Your task to perform on an android device: turn on improve location accuracy Image 0: 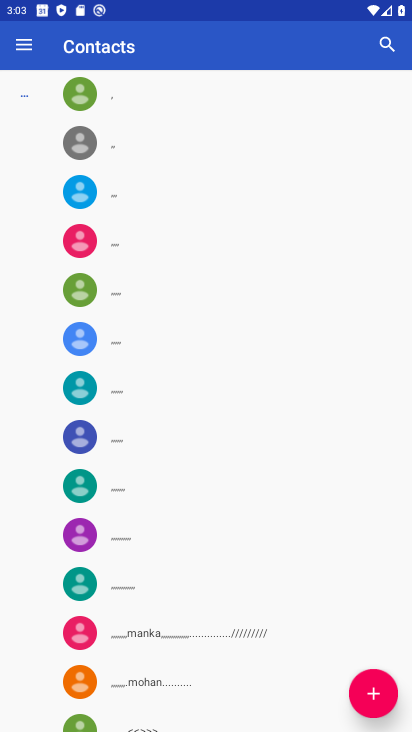
Step 0: press home button
Your task to perform on an android device: turn on improve location accuracy Image 1: 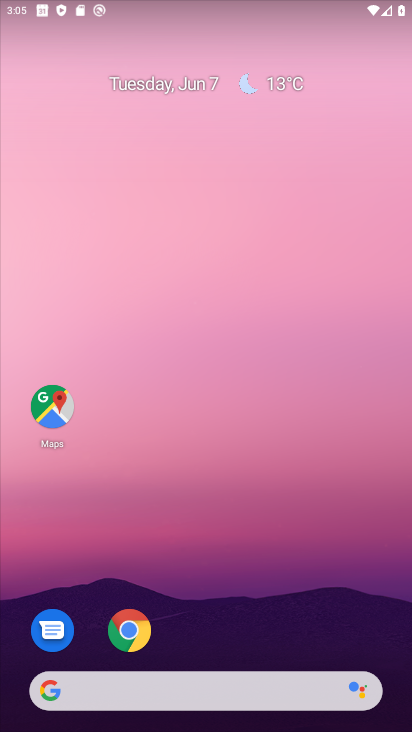
Step 1: drag from (153, 657) to (396, 495)
Your task to perform on an android device: turn on improve location accuracy Image 2: 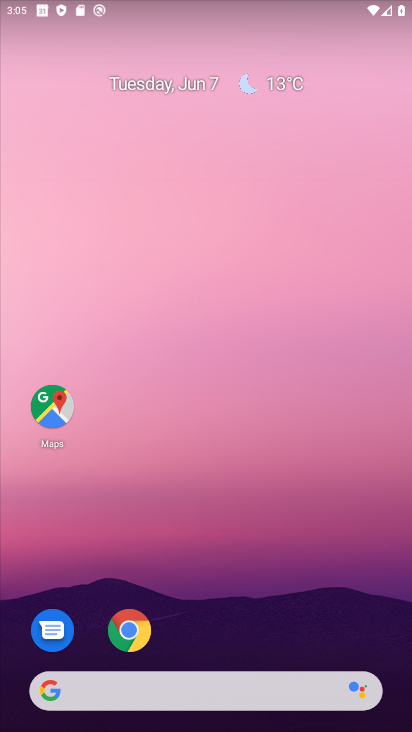
Step 2: drag from (239, 678) to (279, 35)
Your task to perform on an android device: turn on improve location accuracy Image 3: 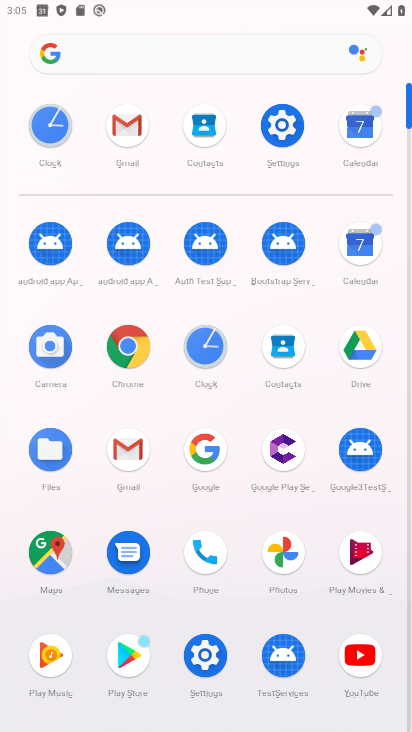
Step 3: click (292, 118)
Your task to perform on an android device: turn on improve location accuracy Image 4: 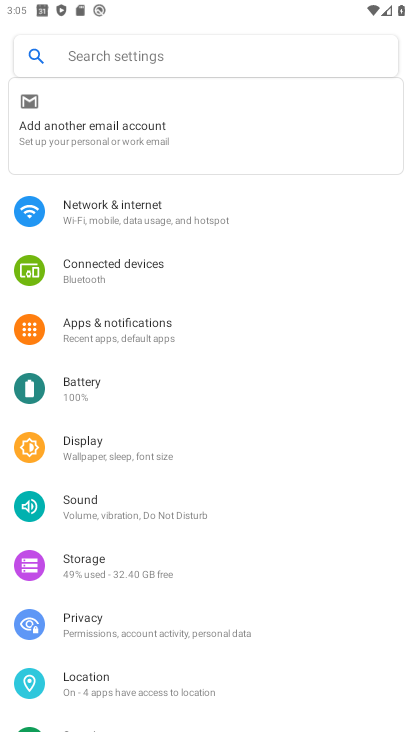
Step 4: click (98, 686)
Your task to perform on an android device: turn on improve location accuracy Image 5: 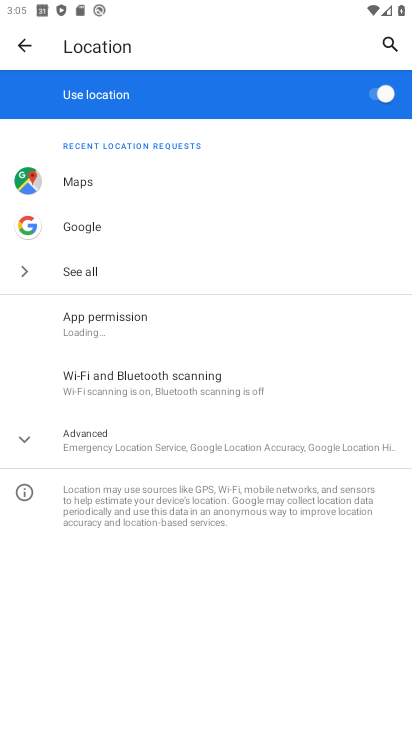
Step 5: click (126, 443)
Your task to perform on an android device: turn on improve location accuracy Image 6: 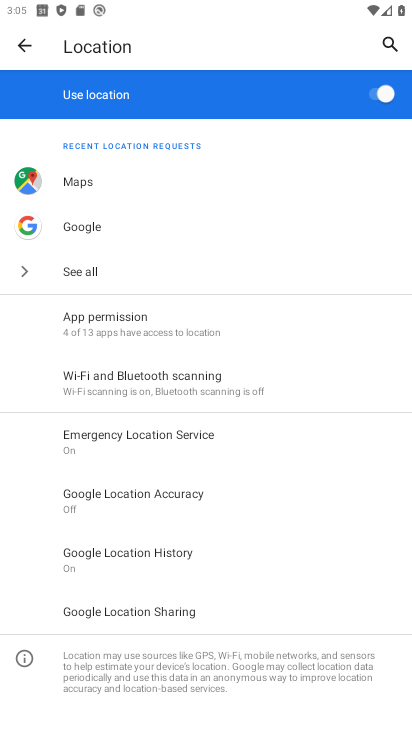
Step 6: click (173, 507)
Your task to perform on an android device: turn on improve location accuracy Image 7: 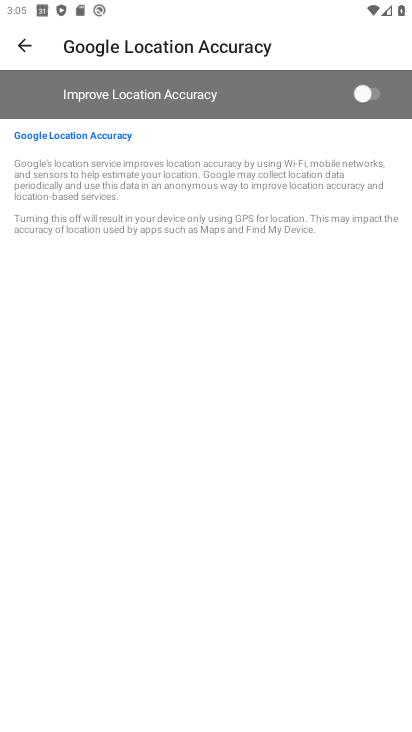
Step 7: click (369, 100)
Your task to perform on an android device: turn on improve location accuracy Image 8: 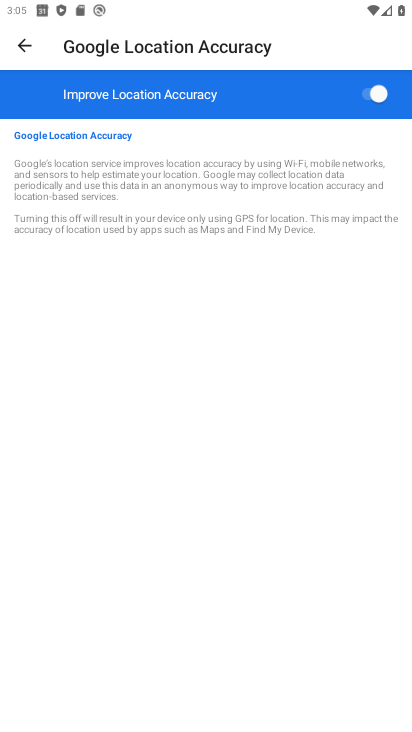
Step 8: task complete